Your task to perform on an android device: Turn off the flashlight Image 0: 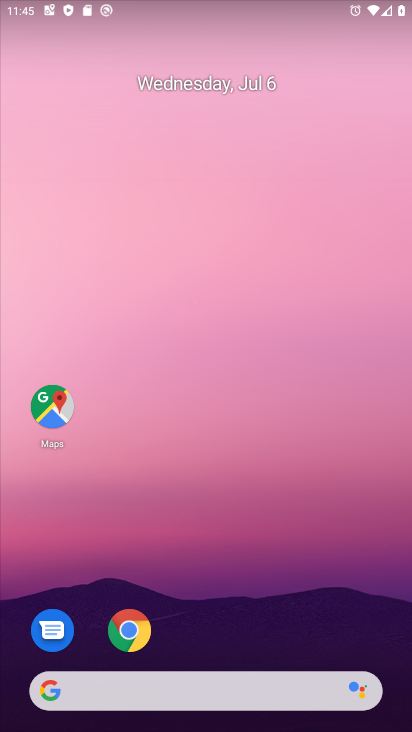
Step 0: drag from (272, 638) to (239, 293)
Your task to perform on an android device: Turn off the flashlight Image 1: 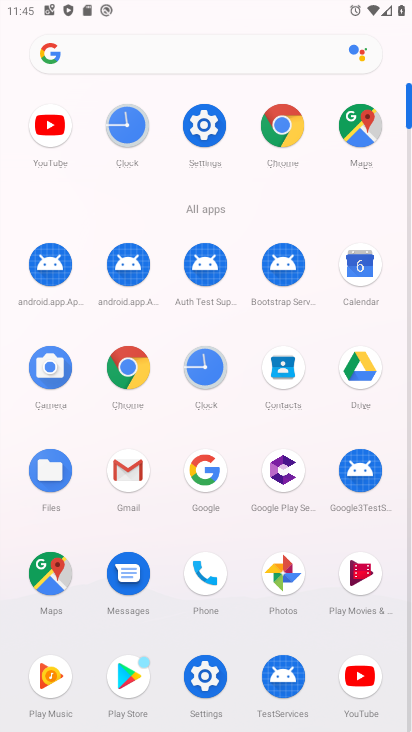
Step 1: drag from (214, 0) to (179, 383)
Your task to perform on an android device: Turn off the flashlight Image 2: 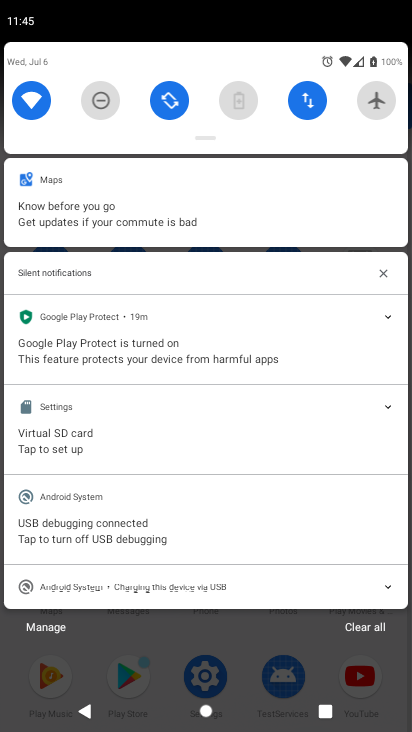
Step 2: drag from (201, 116) to (219, 586)
Your task to perform on an android device: Turn off the flashlight Image 3: 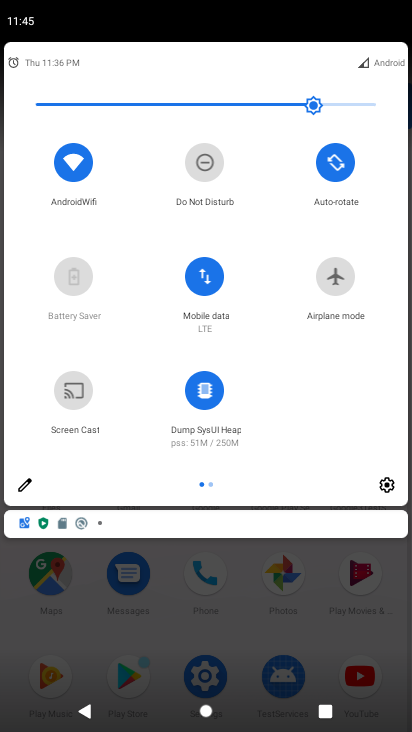
Step 3: drag from (343, 396) to (55, 416)
Your task to perform on an android device: Turn off the flashlight Image 4: 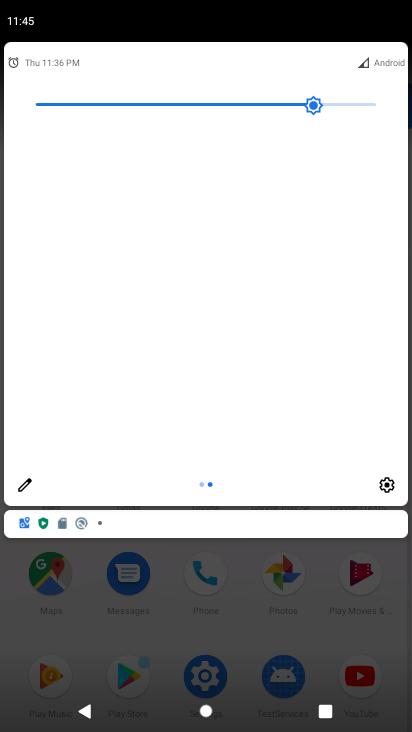
Step 4: click (29, 484)
Your task to perform on an android device: Turn off the flashlight Image 5: 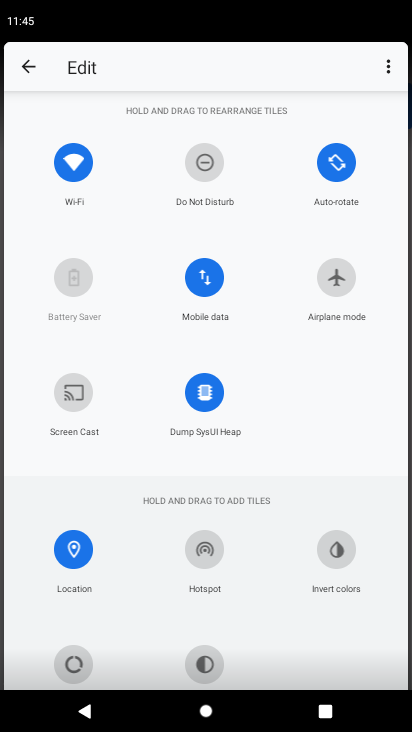
Step 5: task complete